Your task to perform on an android device: check battery use Image 0: 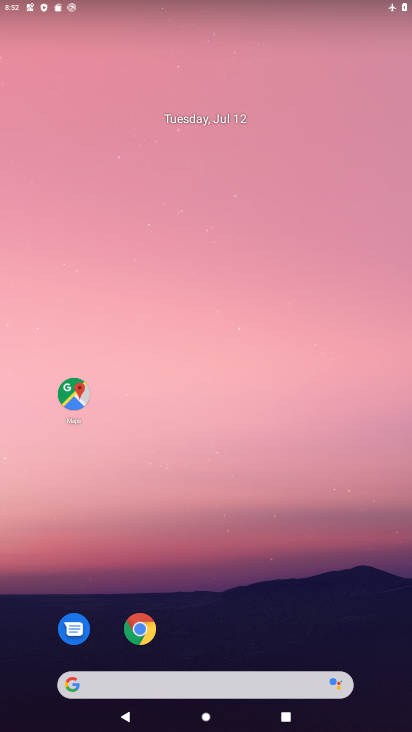
Step 0: drag from (276, 626) to (293, 173)
Your task to perform on an android device: check battery use Image 1: 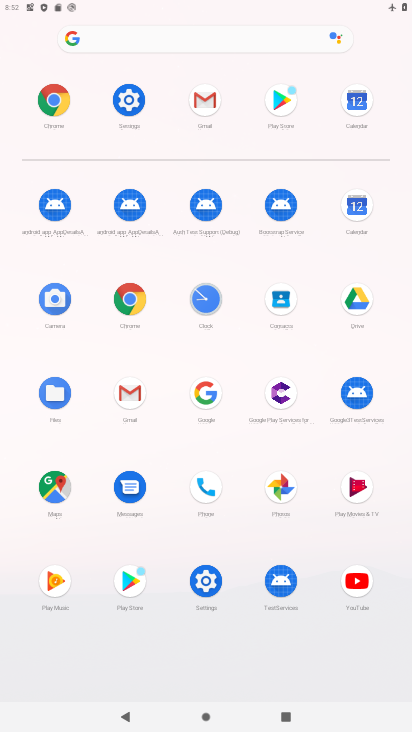
Step 1: click (144, 104)
Your task to perform on an android device: check battery use Image 2: 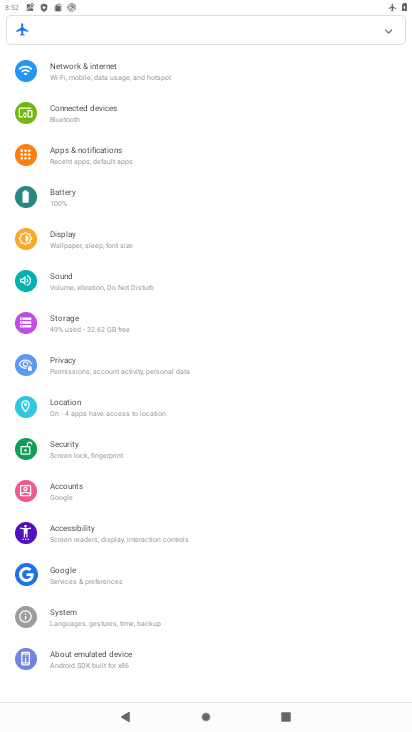
Step 2: click (126, 199)
Your task to perform on an android device: check battery use Image 3: 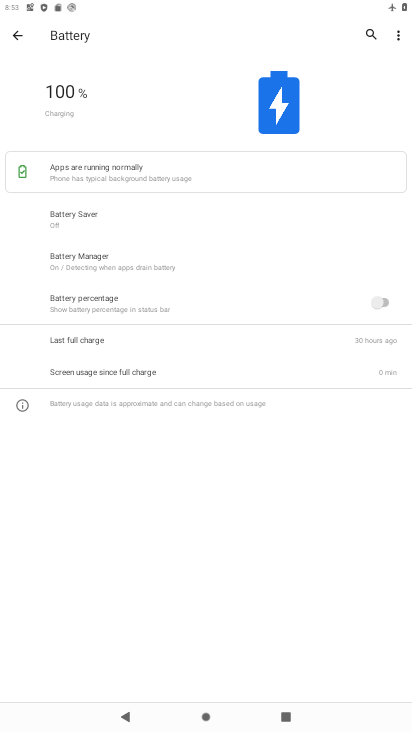
Step 3: task complete